Your task to perform on an android device: find snoozed emails in the gmail app Image 0: 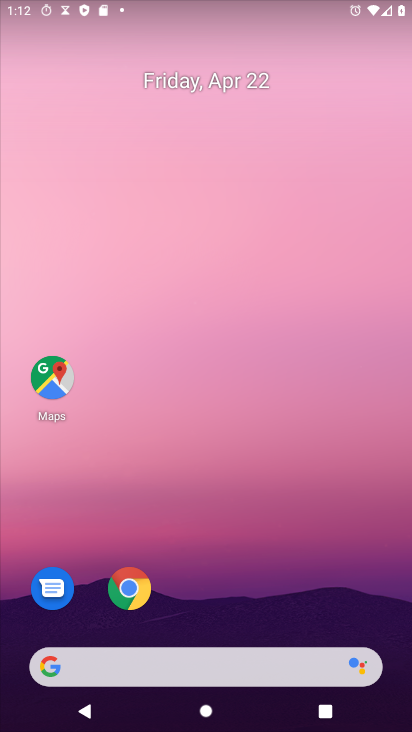
Step 0: drag from (261, 696) to (400, 43)
Your task to perform on an android device: find snoozed emails in the gmail app Image 1: 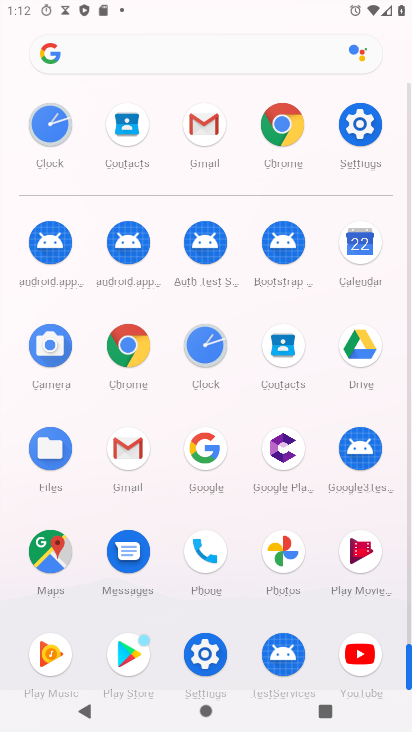
Step 1: click (189, 120)
Your task to perform on an android device: find snoozed emails in the gmail app Image 2: 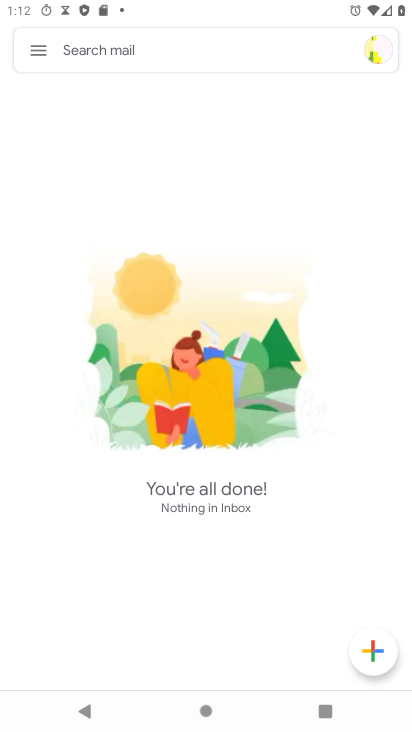
Step 2: click (40, 48)
Your task to perform on an android device: find snoozed emails in the gmail app Image 3: 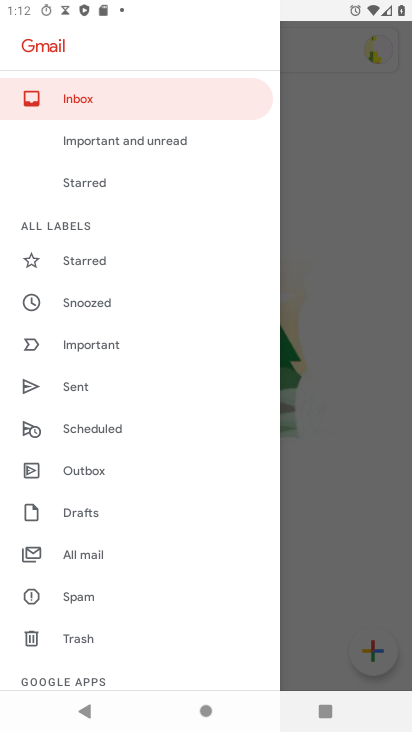
Step 3: click (110, 304)
Your task to perform on an android device: find snoozed emails in the gmail app Image 4: 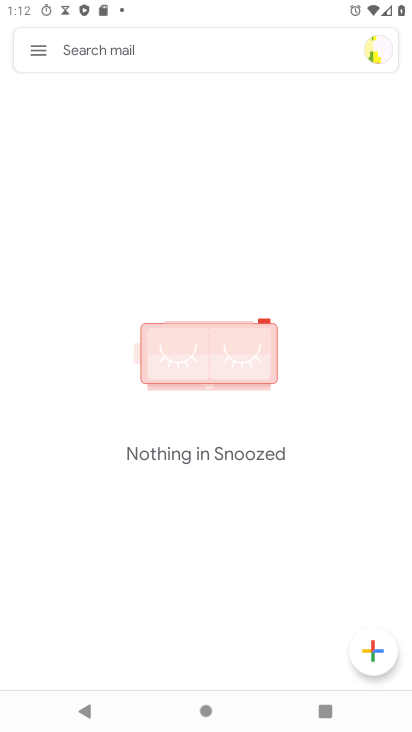
Step 4: task complete